Your task to perform on an android device: Open settings Image 0: 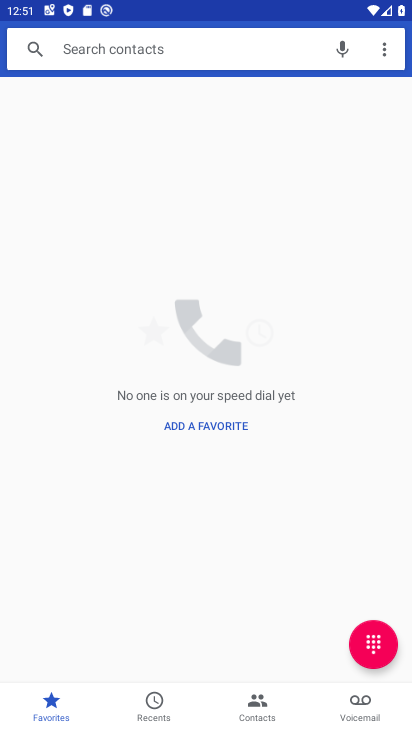
Step 0: press home button
Your task to perform on an android device: Open settings Image 1: 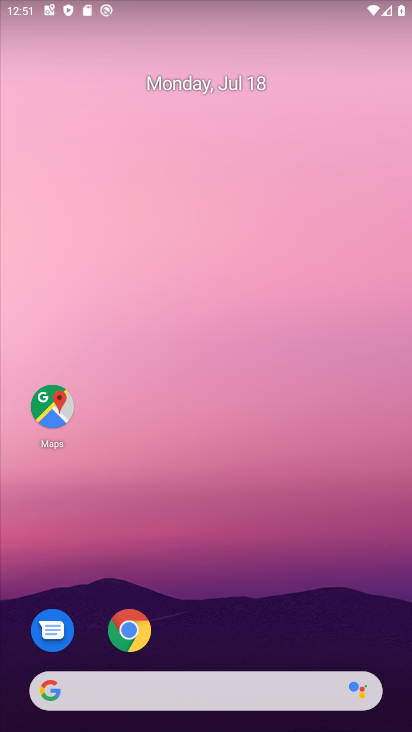
Step 1: drag from (365, 637) to (287, 159)
Your task to perform on an android device: Open settings Image 2: 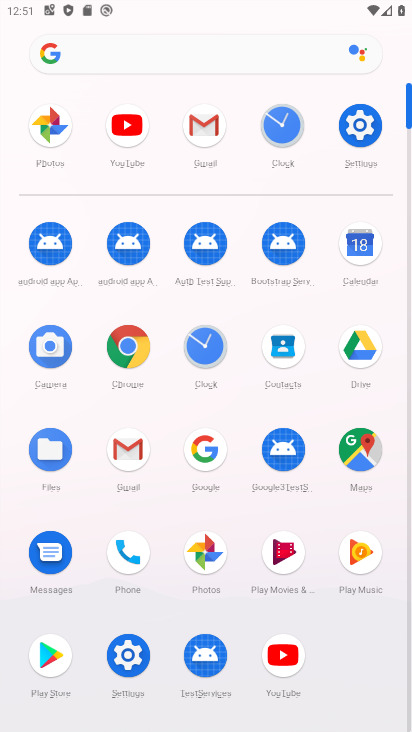
Step 2: click (363, 131)
Your task to perform on an android device: Open settings Image 3: 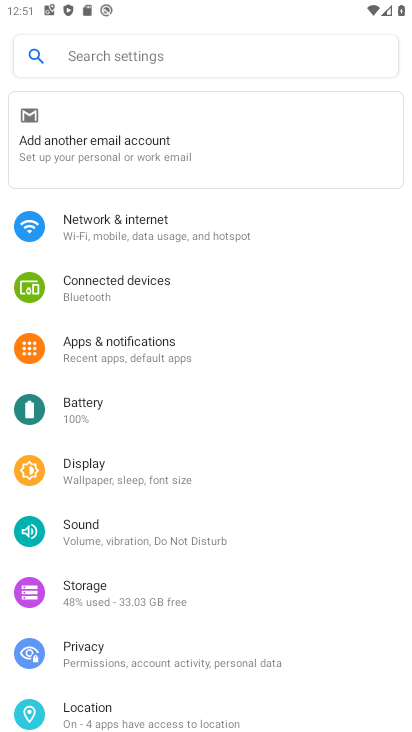
Step 3: task complete